Your task to perform on an android device: Do I have any events tomorrow? Image 0: 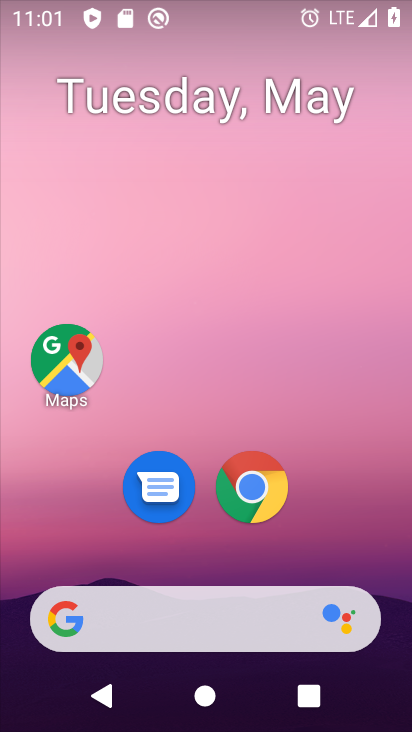
Step 0: drag from (189, 552) to (220, 139)
Your task to perform on an android device: Do I have any events tomorrow? Image 1: 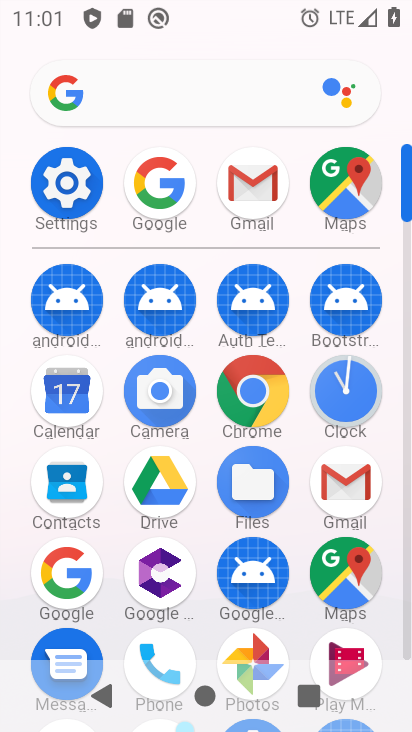
Step 1: click (66, 387)
Your task to perform on an android device: Do I have any events tomorrow? Image 2: 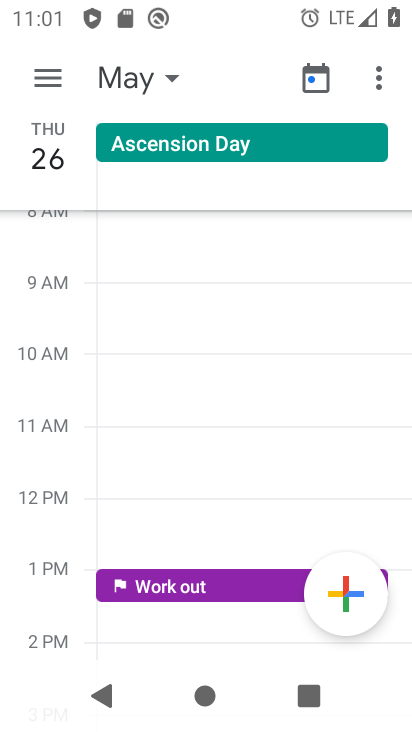
Step 2: click (141, 67)
Your task to perform on an android device: Do I have any events tomorrow? Image 3: 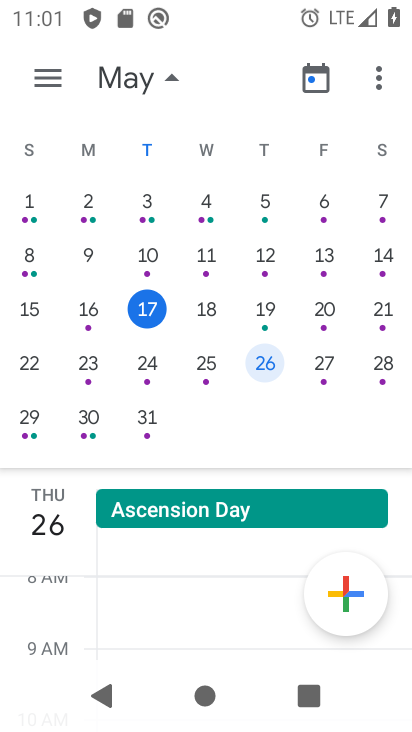
Step 3: click (203, 293)
Your task to perform on an android device: Do I have any events tomorrow? Image 4: 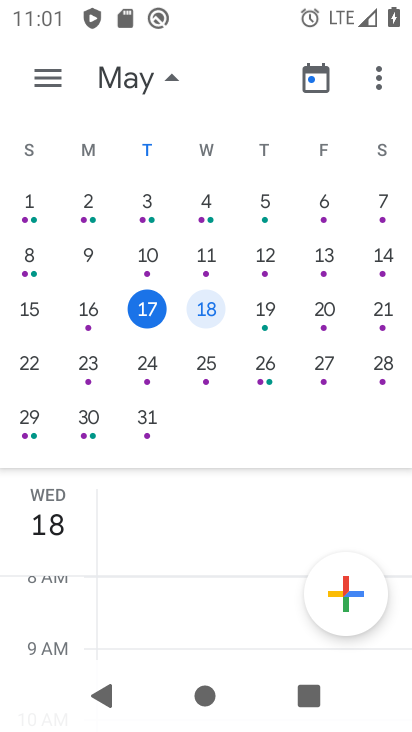
Step 4: drag from (210, 575) to (309, 60)
Your task to perform on an android device: Do I have any events tomorrow? Image 5: 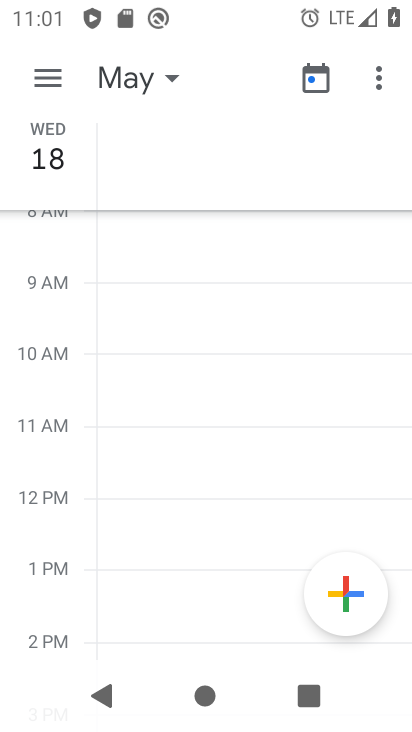
Step 5: drag from (241, 431) to (269, 94)
Your task to perform on an android device: Do I have any events tomorrow? Image 6: 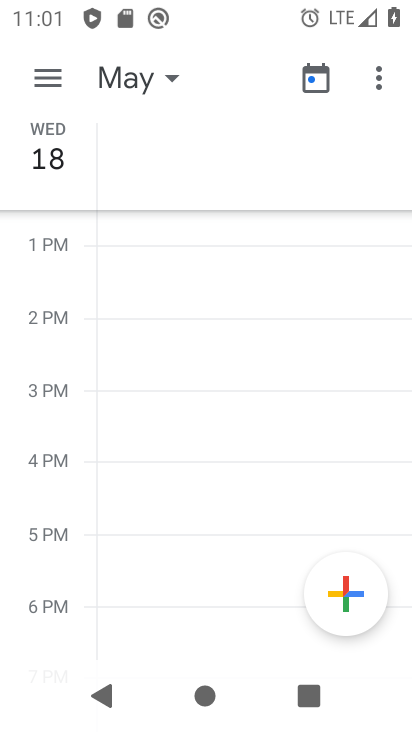
Step 6: drag from (207, 510) to (262, 112)
Your task to perform on an android device: Do I have any events tomorrow? Image 7: 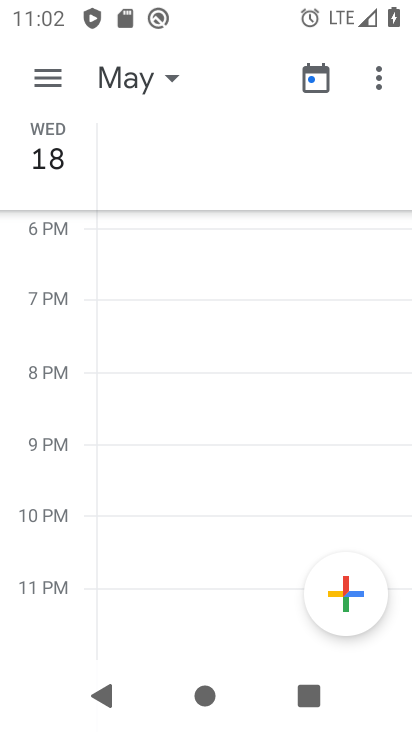
Step 7: drag from (219, 532) to (261, 152)
Your task to perform on an android device: Do I have any events tomorrow? Image 8: 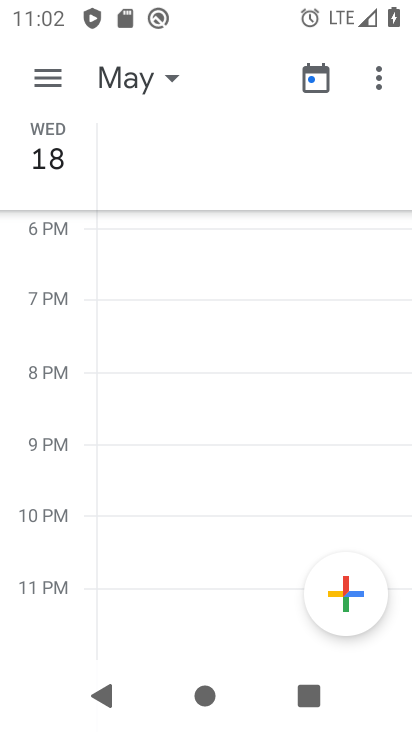
Step 8: drag from (235, 511) to (246, 243)
Your task to perform on an android device: Do I have any events tomorrow? Image 9: 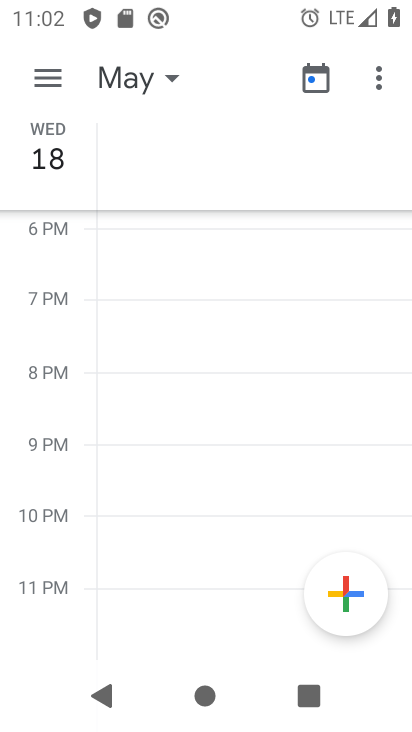
Step 9: drag from (252, 202) to (257, 475)
Your task to perform on an android device: Do I have any events tomorrow? Image 10: 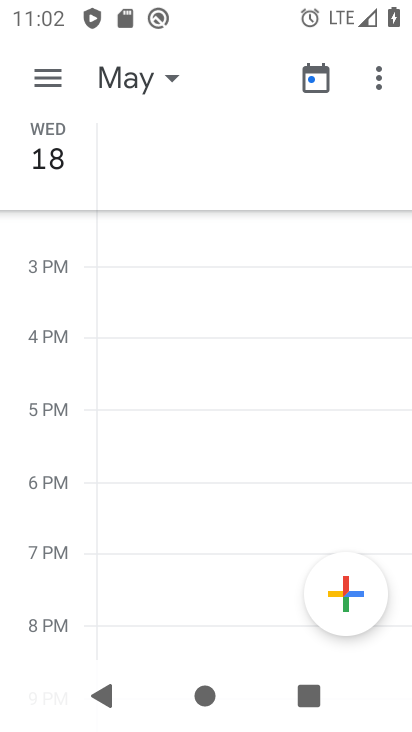
Step 10: click (150, 66)
Your task to perform on an android device: Do I have any events tomorrow? Image 11: 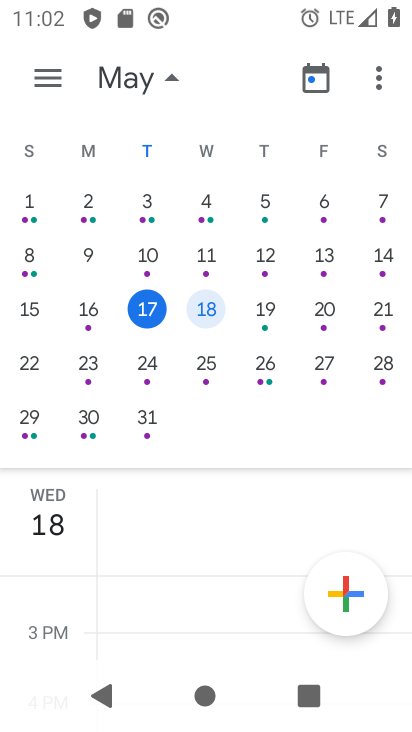
Step 11: click (253, 307)
Your task to perform on an android device: Do I have any events tomorrow? Image 12: 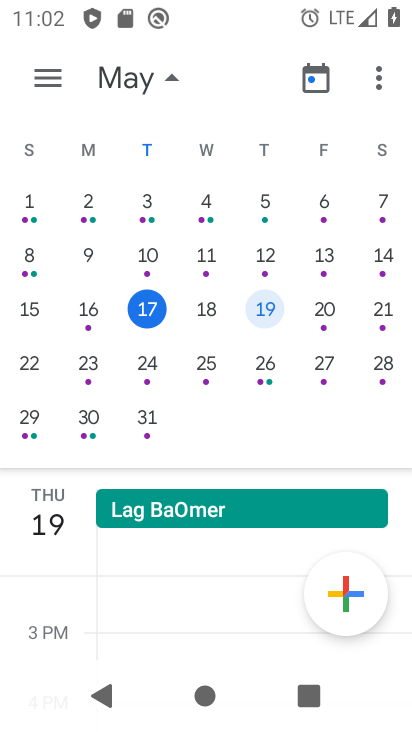
Step 12: click (204, 302)
Your task to perform on an android device: Do I have any events tomorrow? Image 13: 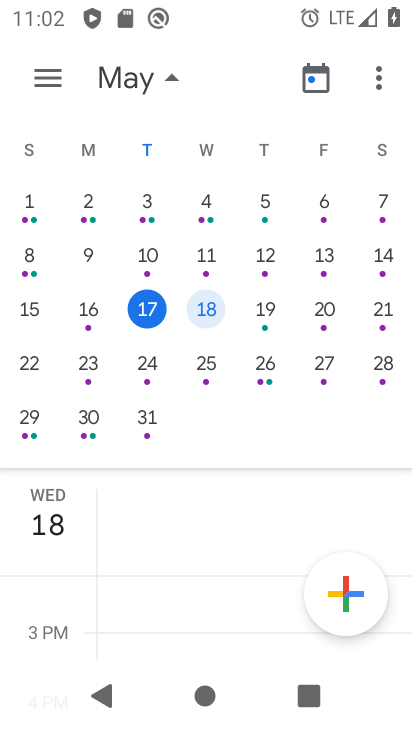
Step 13: task complete